Your task to perform on an android device: toggle data saver in the chrome app Image 0: 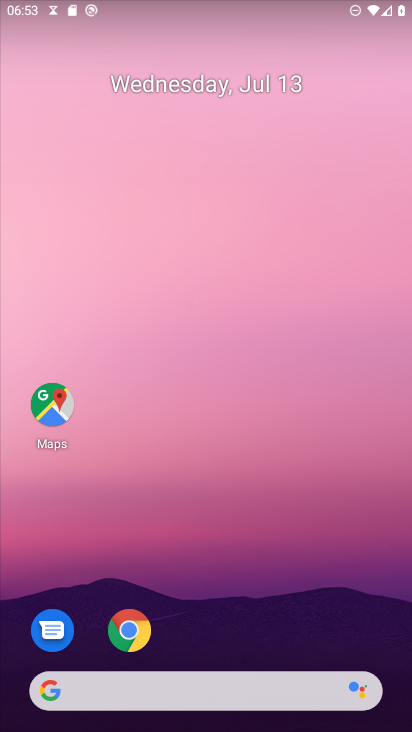
Step 0: drag from (326, 673) to (290, 73)
Your task to perform on an android device: toggle data saver in the chrome app Image 1: 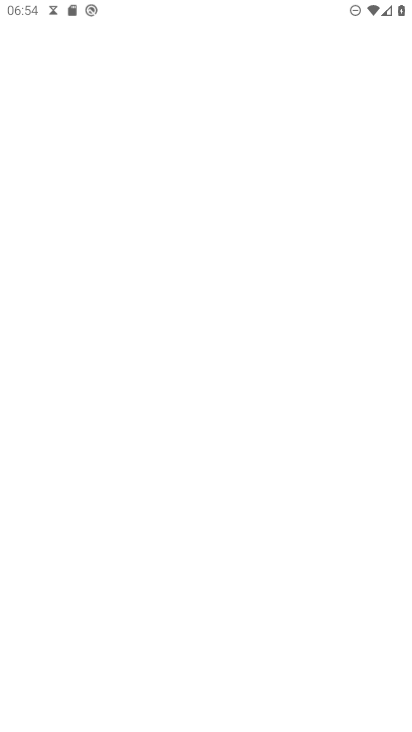
Step 1: press home button
Your task to perform on an android device: toggle data saver in the chrome app Image 2: 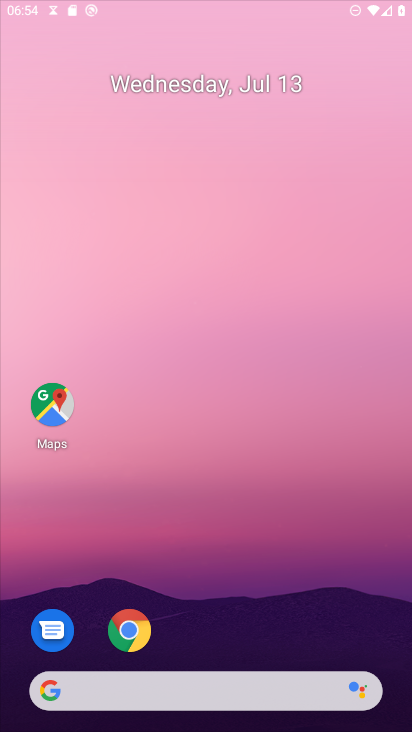
Step 2: drag from (298, 695) to (314, 148)
Your task to perform on an android device: toggle data saver in the chrome app Image 3: 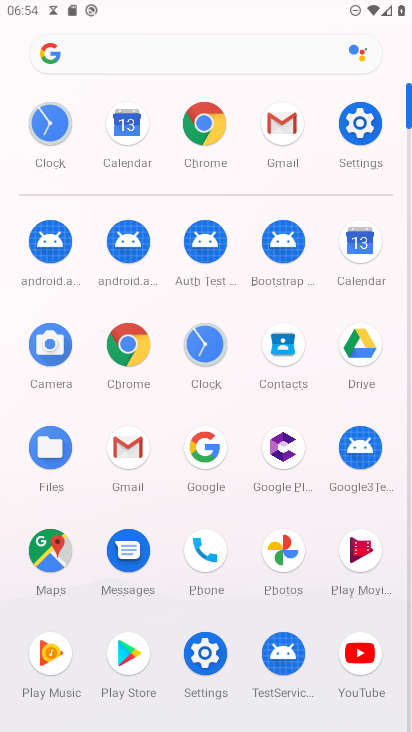
Step 3: click (136, 355)
Your task to perform on an android device: toggle data saver in the chrome app Image 4: 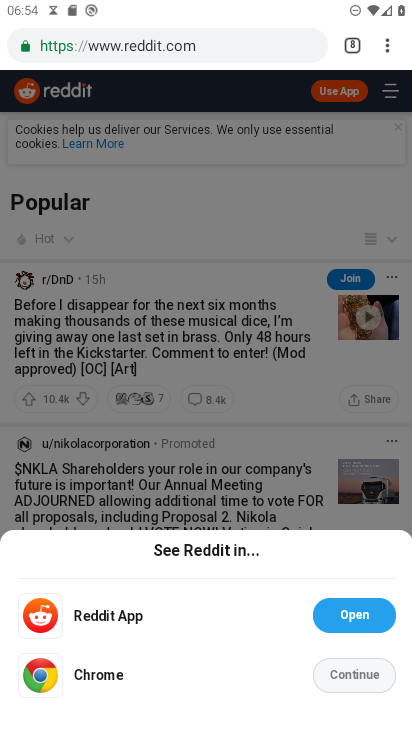
Step 4: drag from (377, 53) to (236, 553)
Your task to perform on an android device: toggle data saver in the chrome app Image 5: 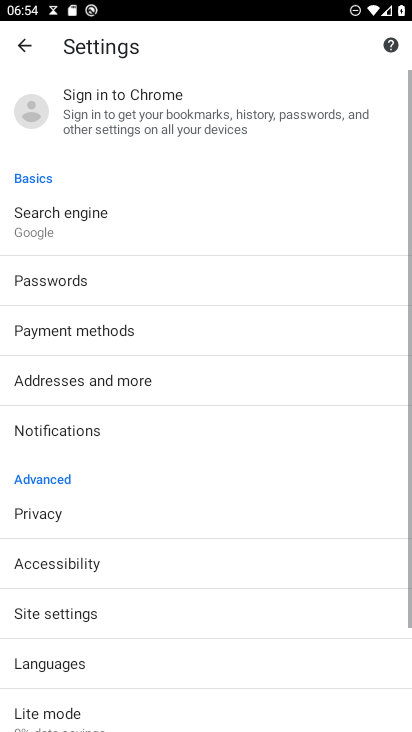
Step 5: drag from (194, 634) to (196, 317)
Your task to perform on an android device: toggle data saver in the chrome app Image 6: 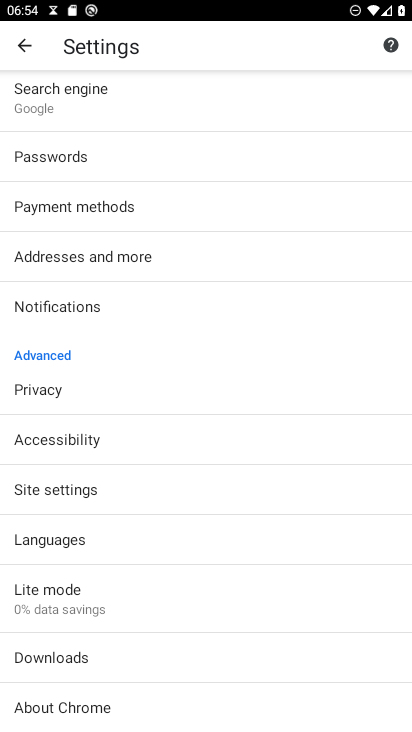
Step 6: click (95, 592)
Your task to perform on an android device: toggle data saver in the chrome app Image 7: 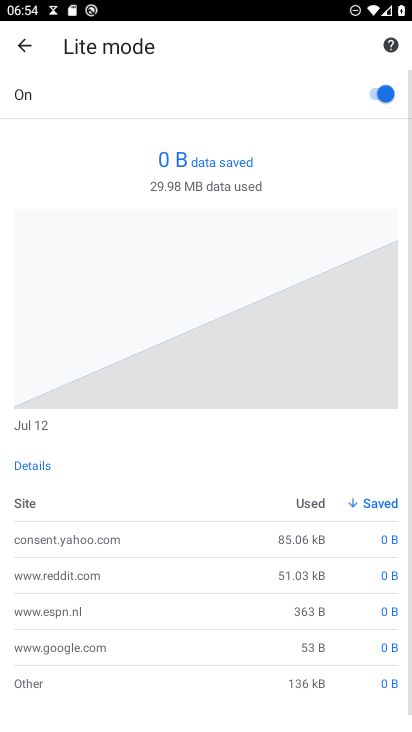
Step 7: click (379, 89)
Your task to perform on an android device: toggle data saver in the chrome app Image 8: 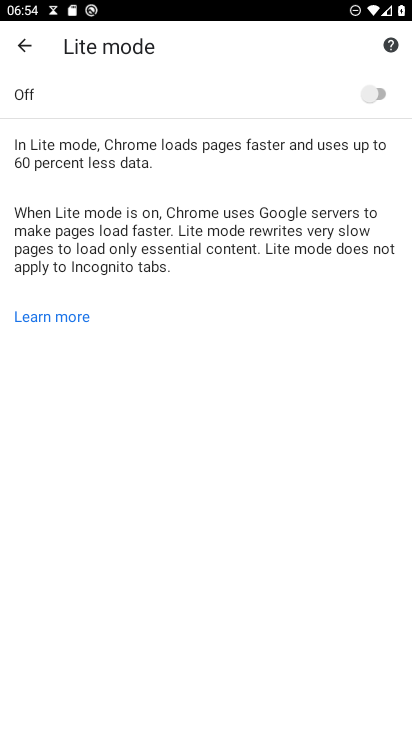
Step 8: task complete